Your task to perform on an android device: Search for pizza restaurants on Maps Image 0: 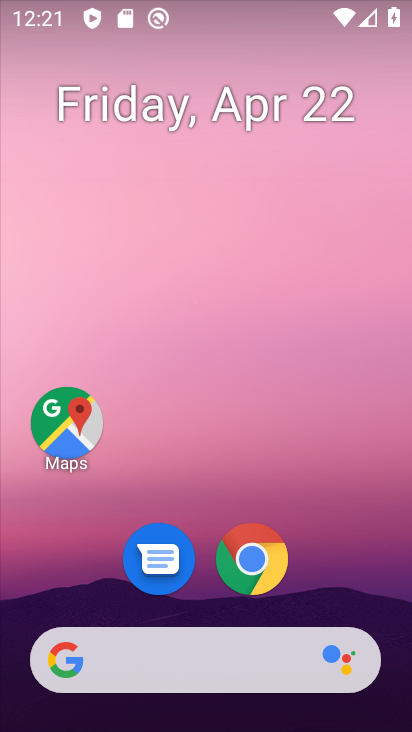
Step 0: drag from (356, 577) to (357, 94)
Your task to perform on an android device: Search for pizza restaurants on Maps Image 1: 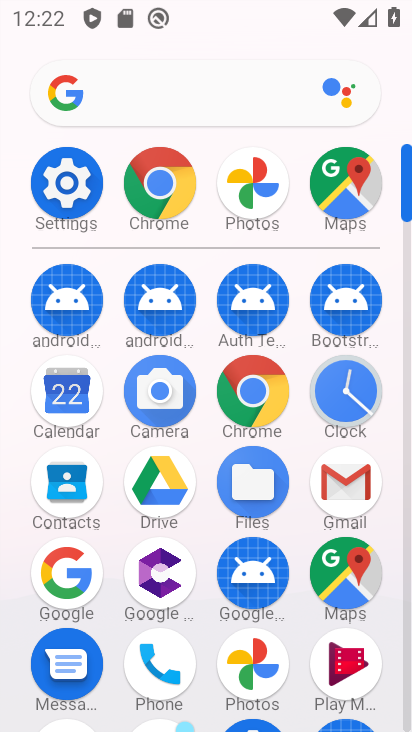
Step 1: click (351, 181)
Your task to perform on an android device: Search for pizza restaurants on Maps Image 2: 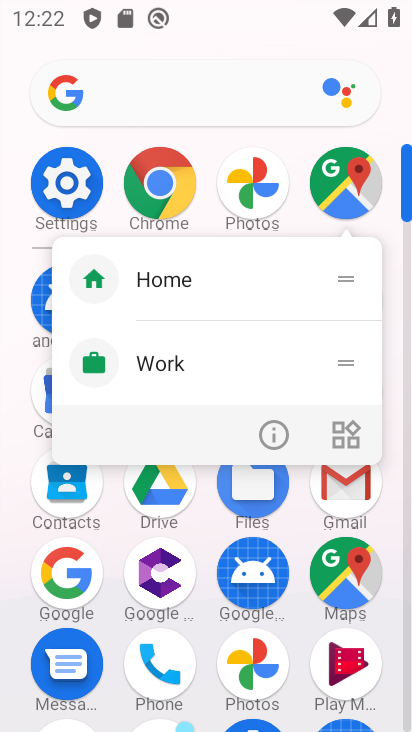
Step 2: click (352, 173)
Your task to perform on an android device: Search for pizza restaurants on Maps Image 3: 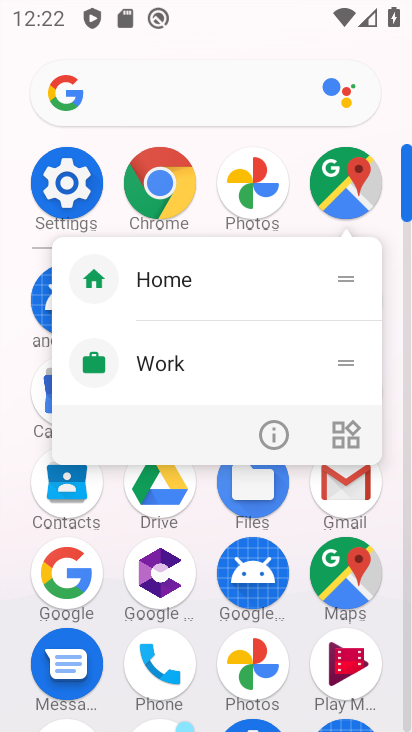
Step 3: click (346, 186)
Your task to perform on an android device: Search for pizza restaurants on Maps Image 4: 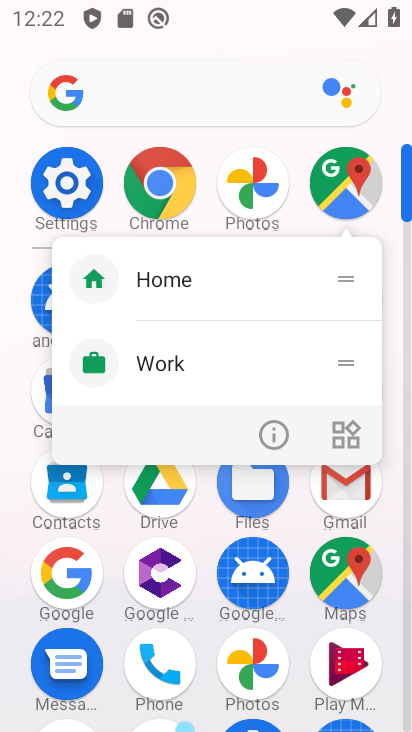
Step 4: click (353, 176)
Your task to perform on an android device: Search for pizza restaurants on Maps Image 5: 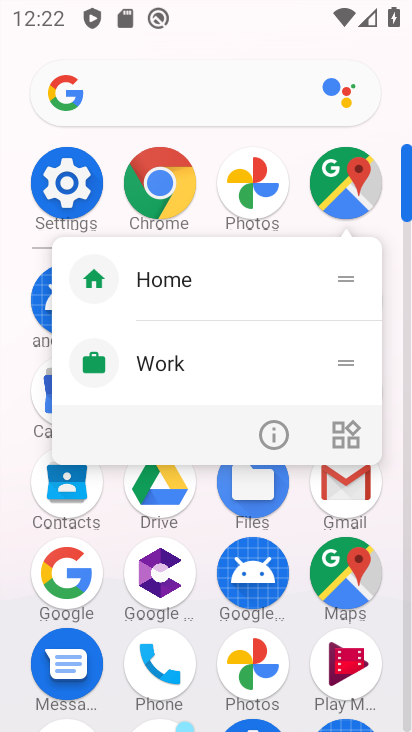
Step 5: click (345, 171)
Your task to perform on an android device: Search for pizza restaurants on Maps Image 6: 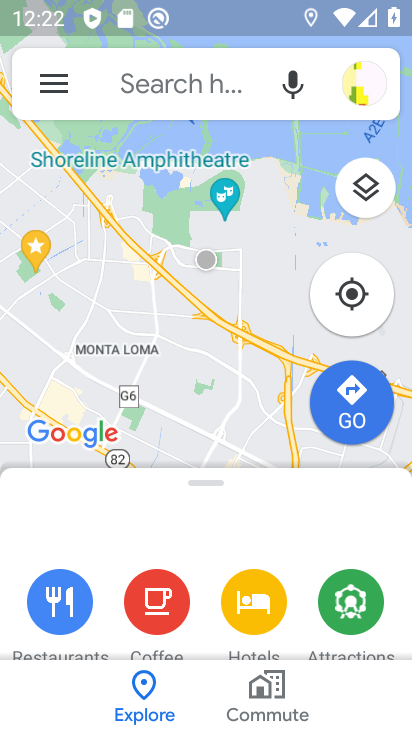
Step 6: click (194, 78)
Your task to perform on an android device: Search for pizza restaurants on Maps Image 7: 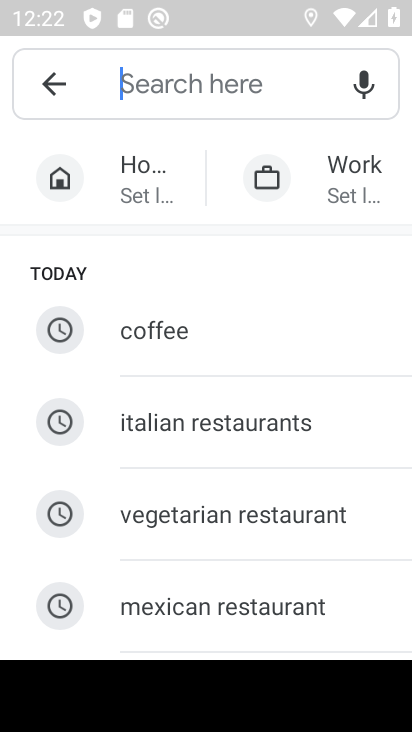
Step 7: type "pizzaa restaurants"
Your task to perform on an android device: Search for pizza restaurants on Maps Image 8: 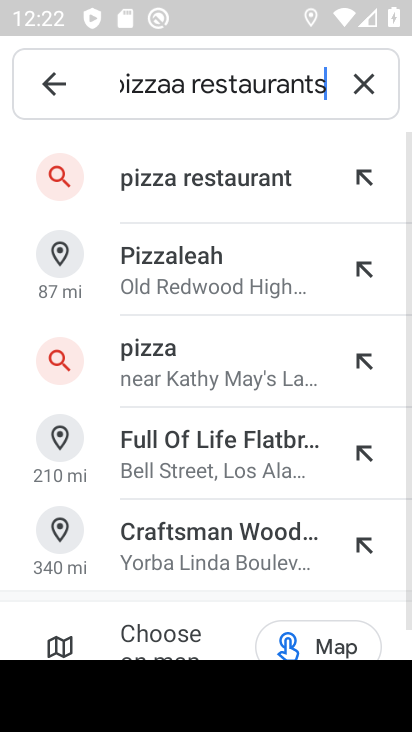
Step 8: click (199, 176)
Your task to perform on an android device: Search for pizza restaurants on Maps Image 9: 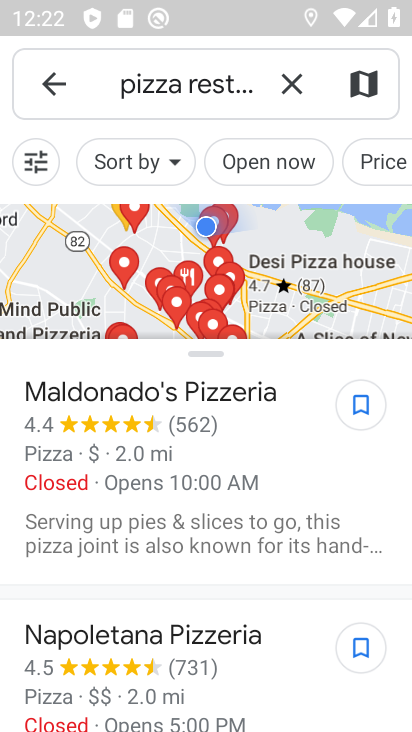
Step 9: task complete